Your task to perform on an android device: Go to Google Image 0: 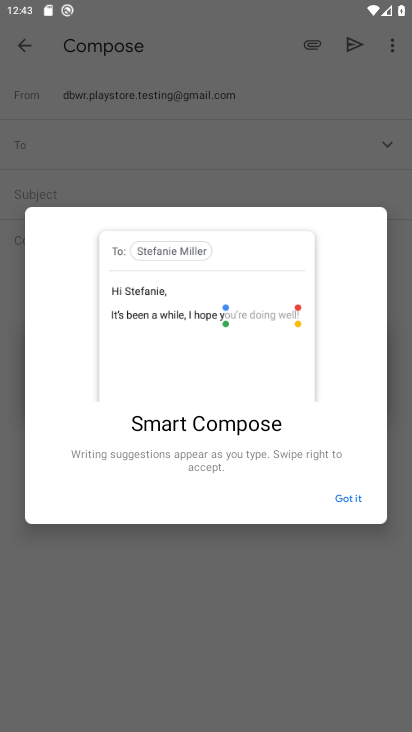
Step 0: press home button
Your task to perform on an android device: Go to Google Image 1: 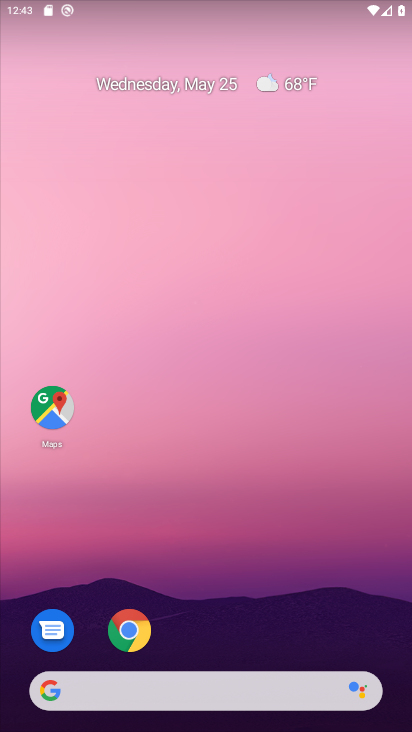
Step 1: drag from (181, 635) to (200, 150)
Your task to perform on an android device: Go to Google Image 2: 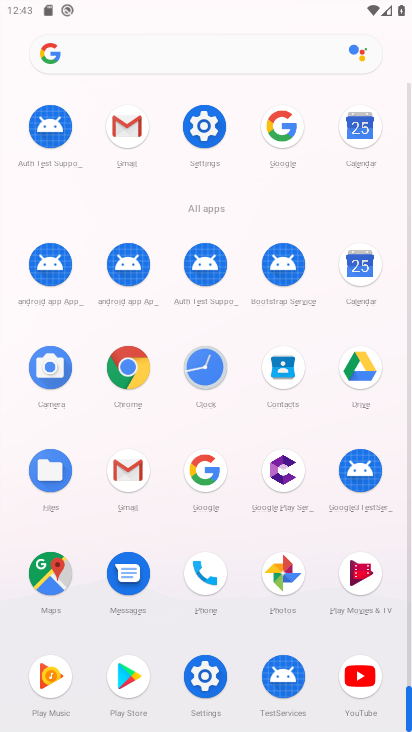
Step 2: click (213, 459)
Your task to perform on an android device: Go to Google Image 3: 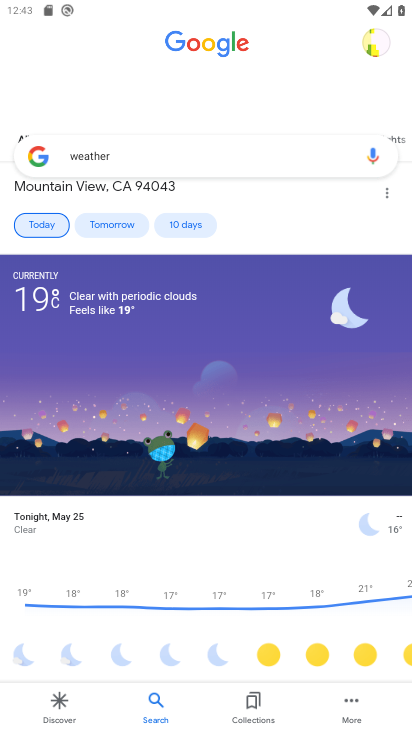
Step 3: task complete